Your task to perform on an android device: turn on bluetooth scan Image 0: 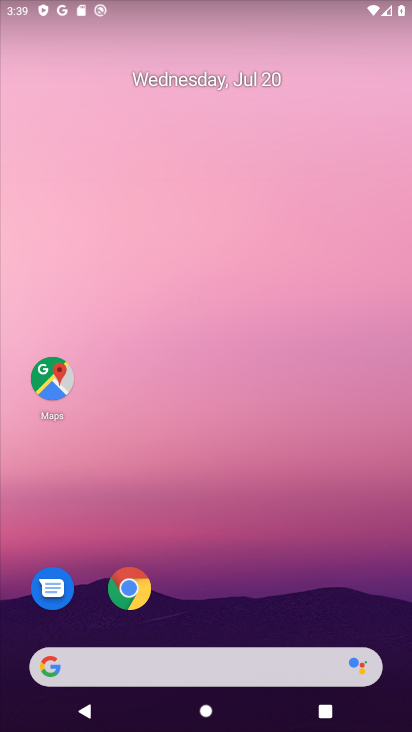
Step 0: drag from (201, 636) to (217, 166)
Your task to perform on an android device: turn on bluetooth scan Image 1: 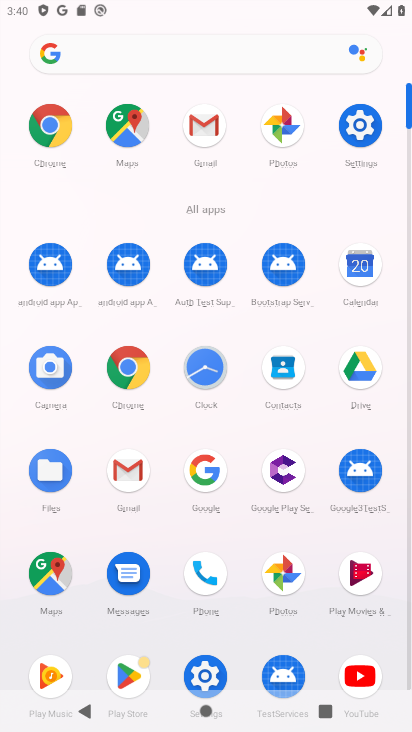
Step 1: click (349, 119)
Your task to perform on an android device: turn on bluetooth scan Image 2: 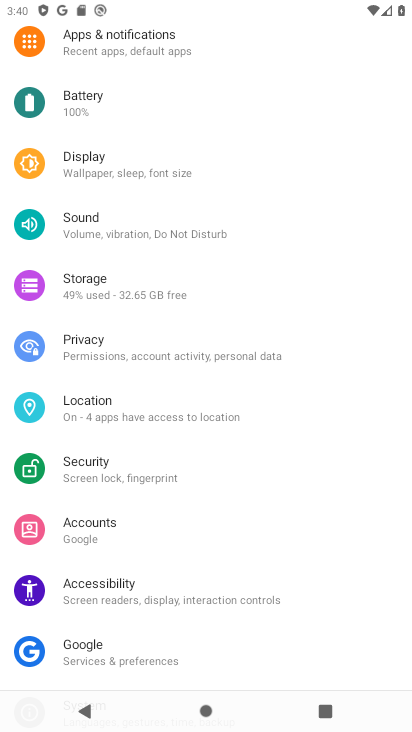
Step 2: click (111, 422)
Your task to perform on an android device: turn on bluetooth scan Image 3: 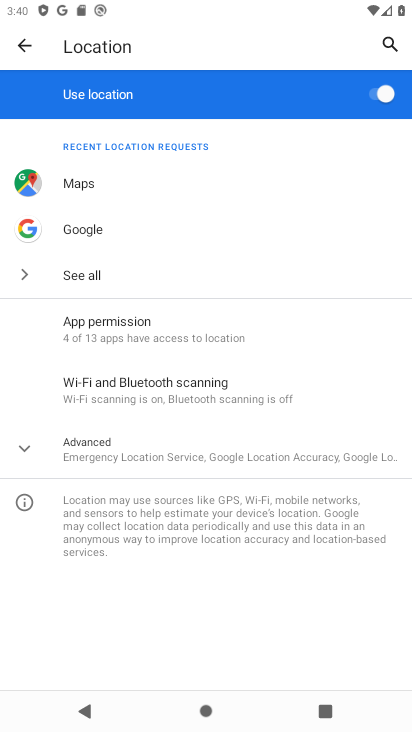
Step 3: click (136, 387)
Your task to perform on an android device: turn on bluetooth scan Image 4: 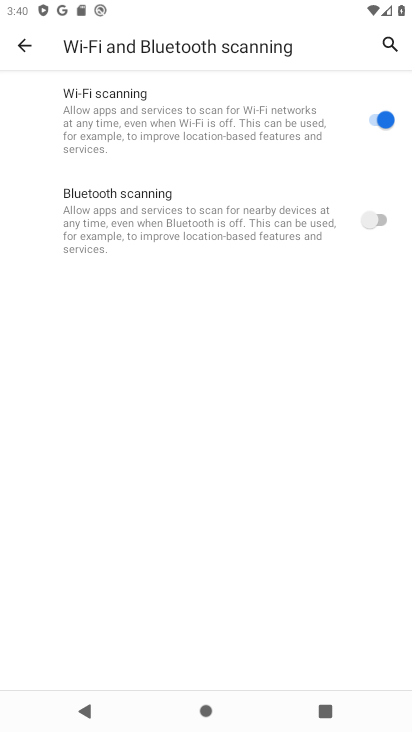
Step 4: click (384, 226)
Your task to perform on an android device: turn on bluetooth scan Image 5: 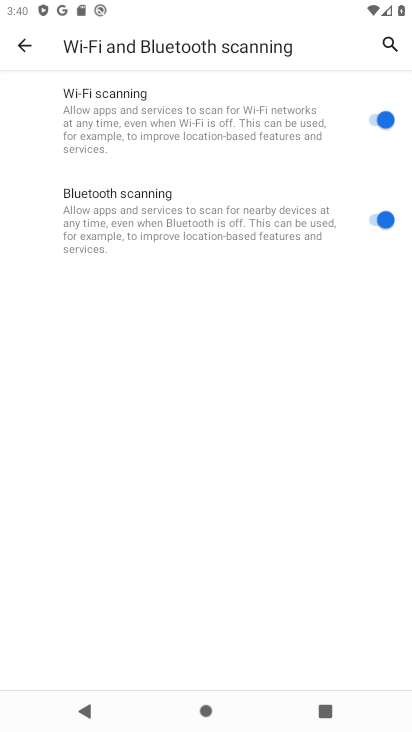
Step 5: task complete